Your task to perform on an android device: change the clock display to show seconds Image 0: 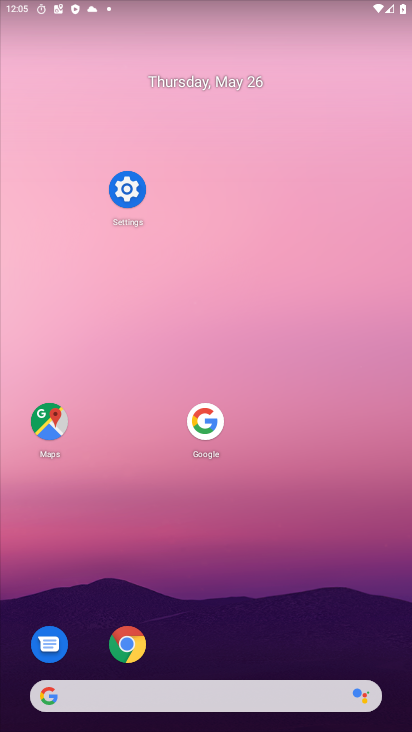
Step 0: drag from (215, 615) to (267, 85)
Your task to perform on an android device: change the clock display to show seconds Image 1: 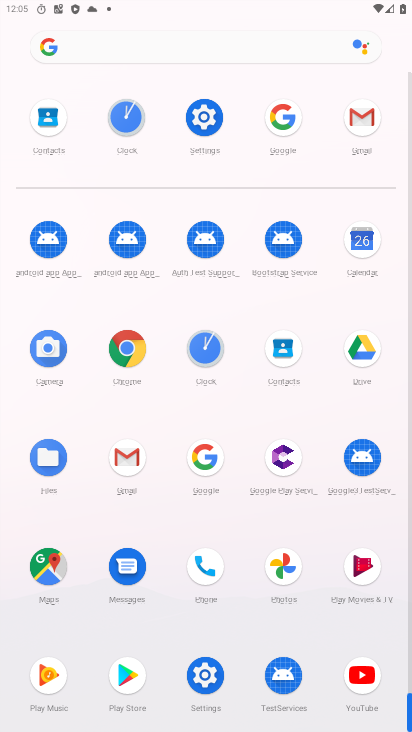
Step 1: click (206, 337)
Your task to perform on an android device: change the clock display to show seconds Image 2: 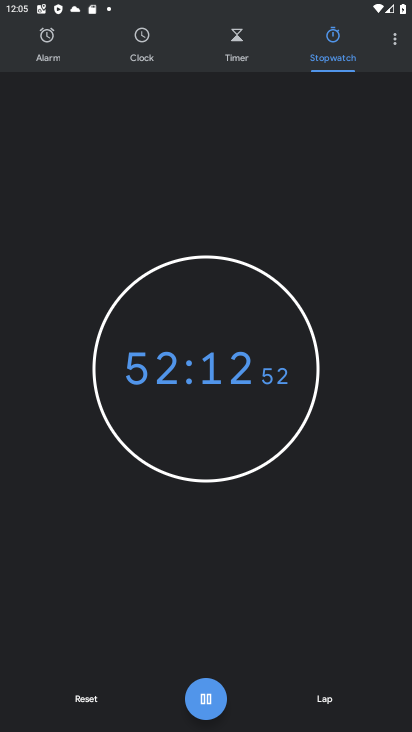
Step 2: click (386, 45)
Your task to perform on an android device: change the clock display to show seconds Image 3: 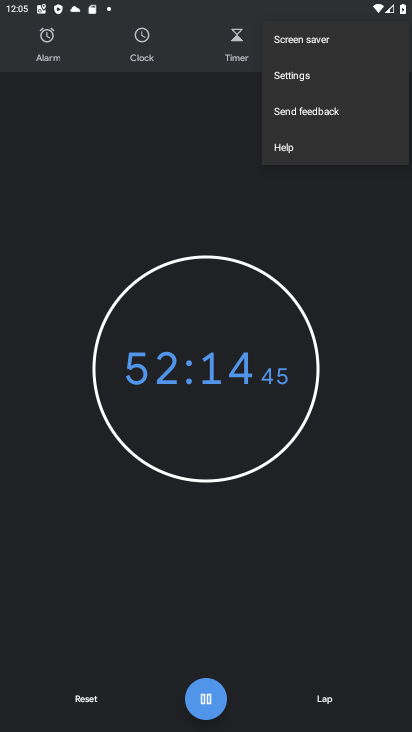
Step 3: click (321, 88)
Your task to perform on an android device: change the clock display to show seconds Image 4: 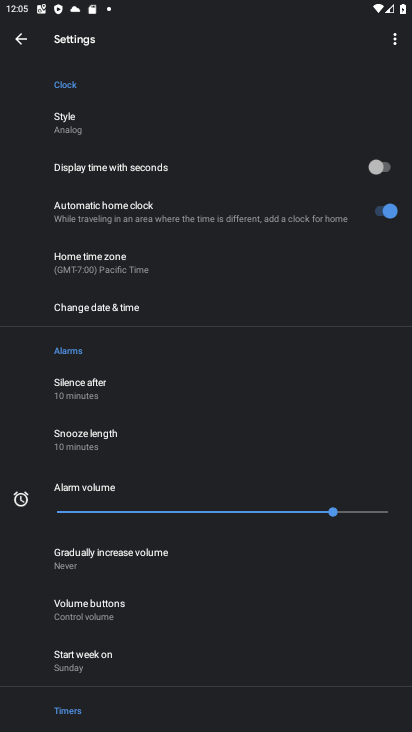
Step 4: click (372, 166)
Your task to perform on an android device: change the clock display to show seconds Image 5: 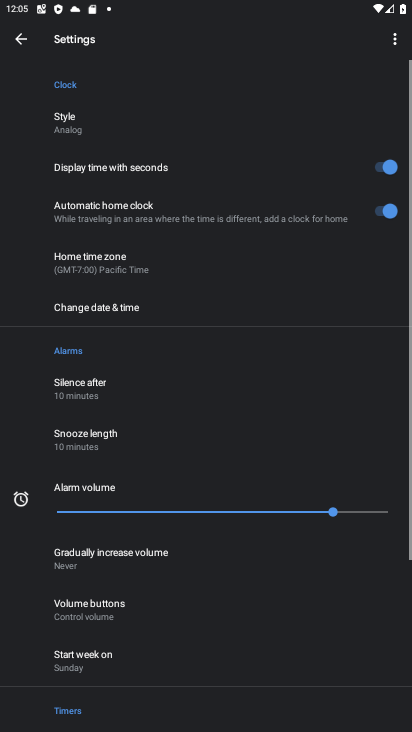
Step 5: task complete